Your task to perform on an android device: What's the weather? Image 0: 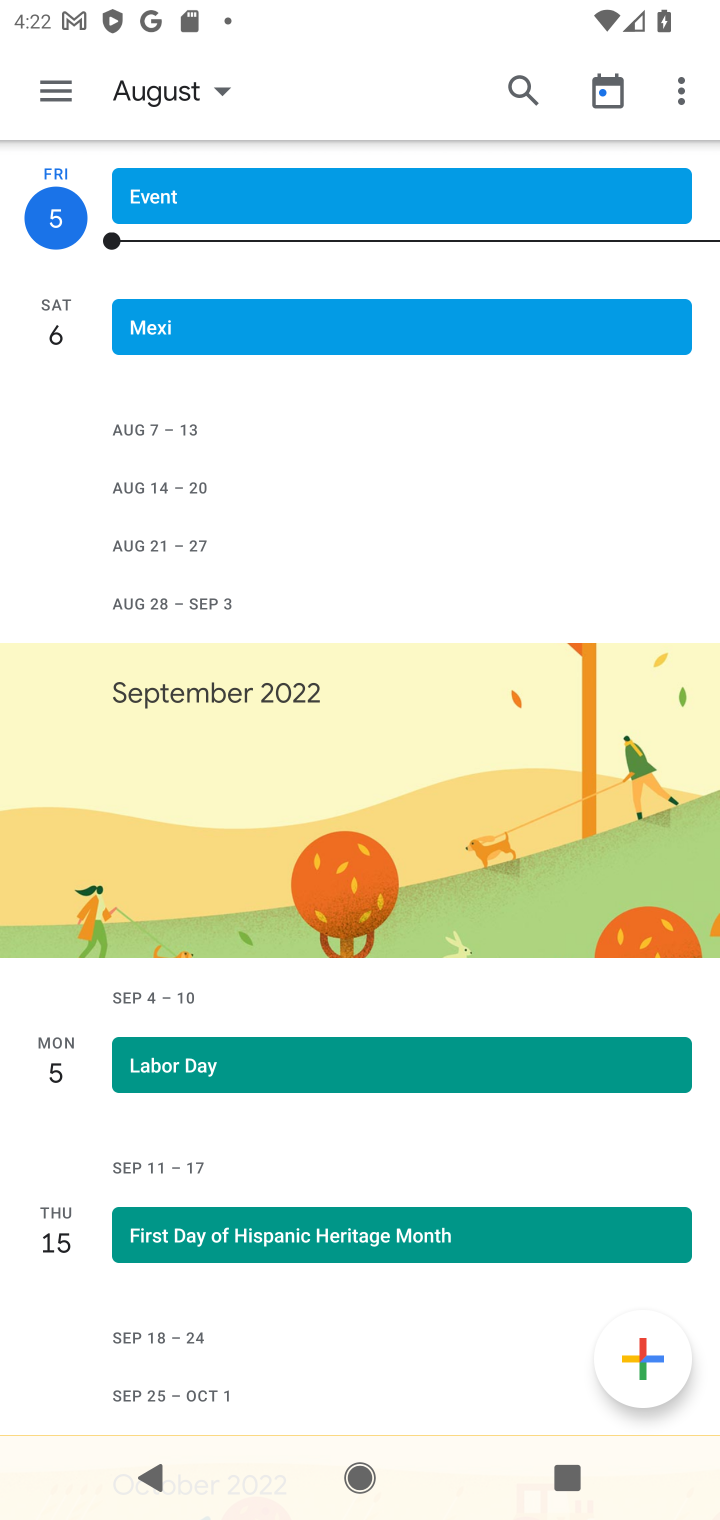
Step 0: press home button
Your task to perform on an android device: What's the weather? Image 1: 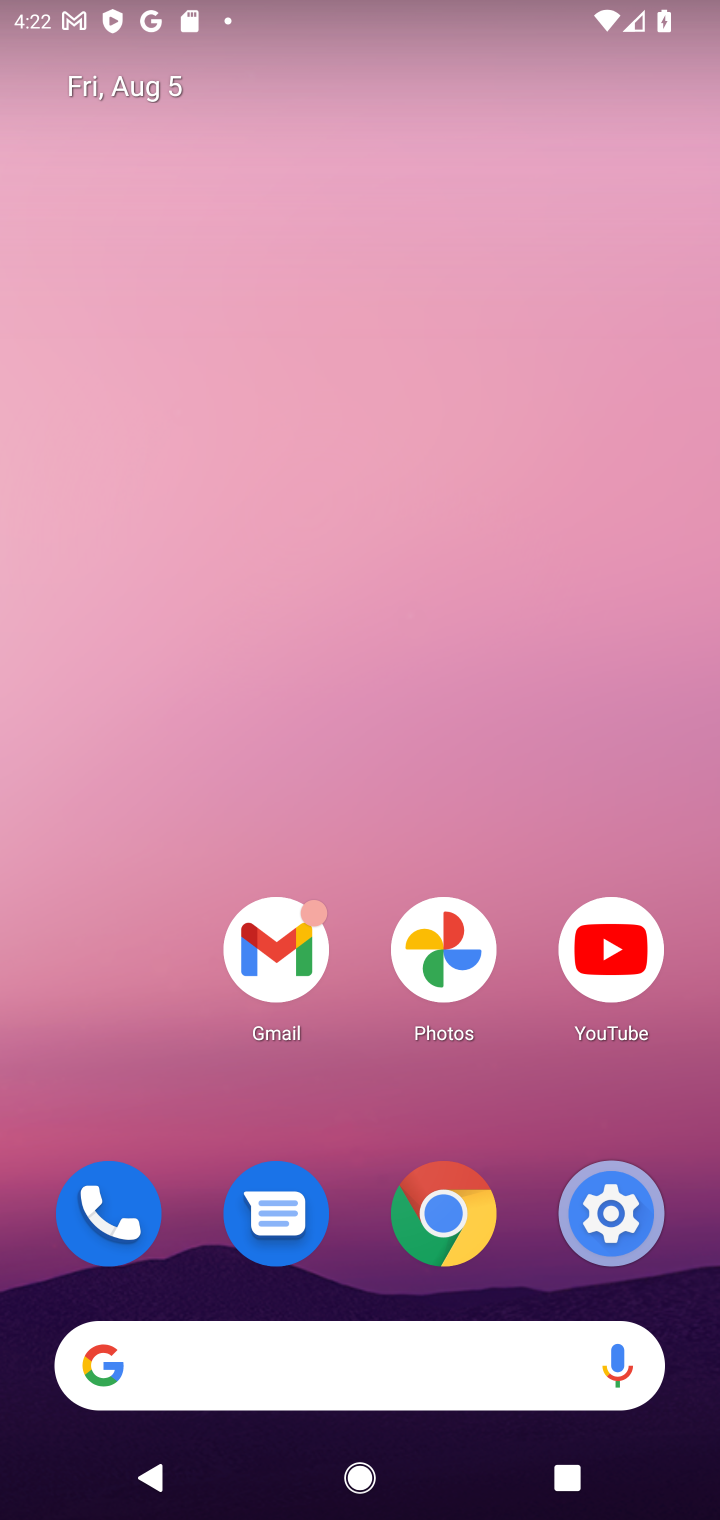
Step 1: click (403, 1364)
Your task to perform on an android device: What's the weather? Image 2: 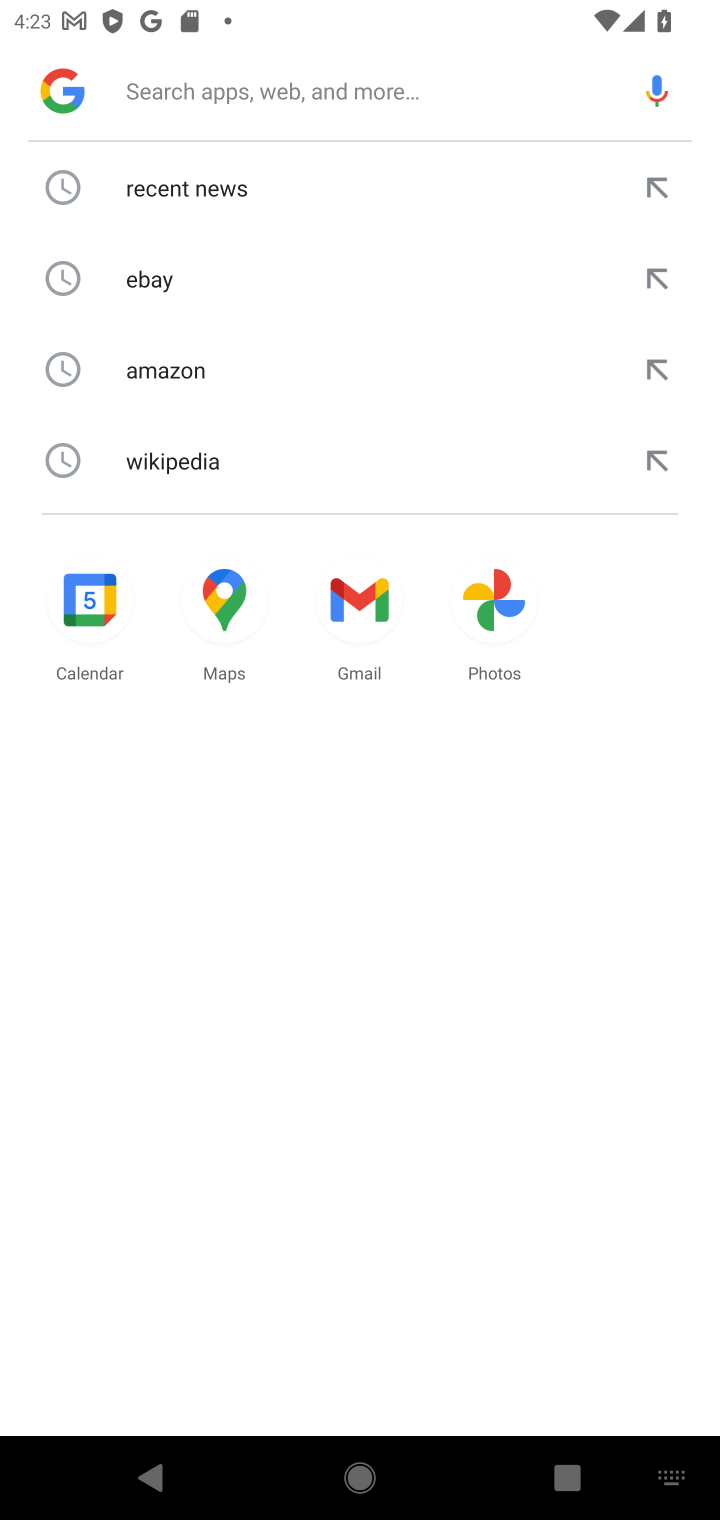
Step 2: type "weather"
Your task to perform on an android device: What's the weather? Image 3: 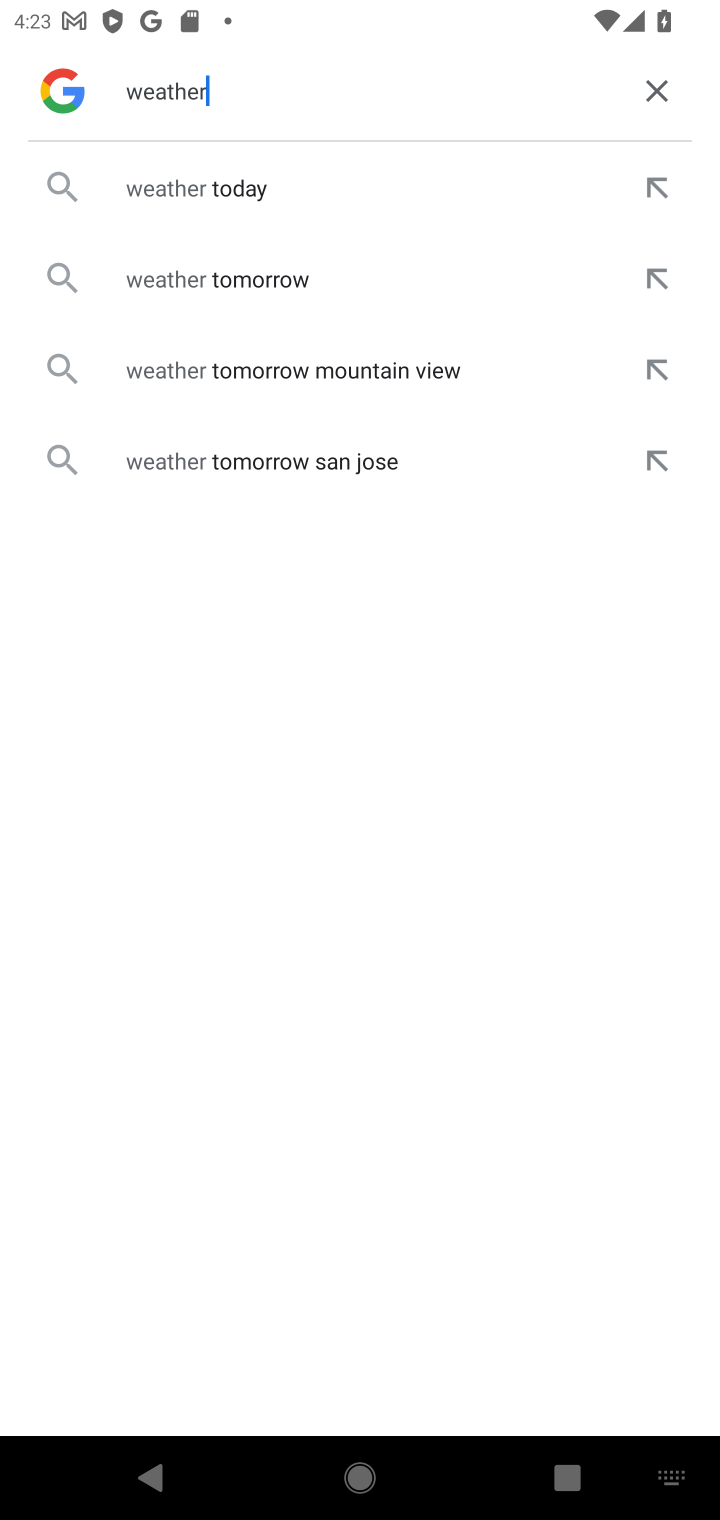
Step 3: click (186, 214)
Your task to perform on an android device: What's the weather? Image 4: 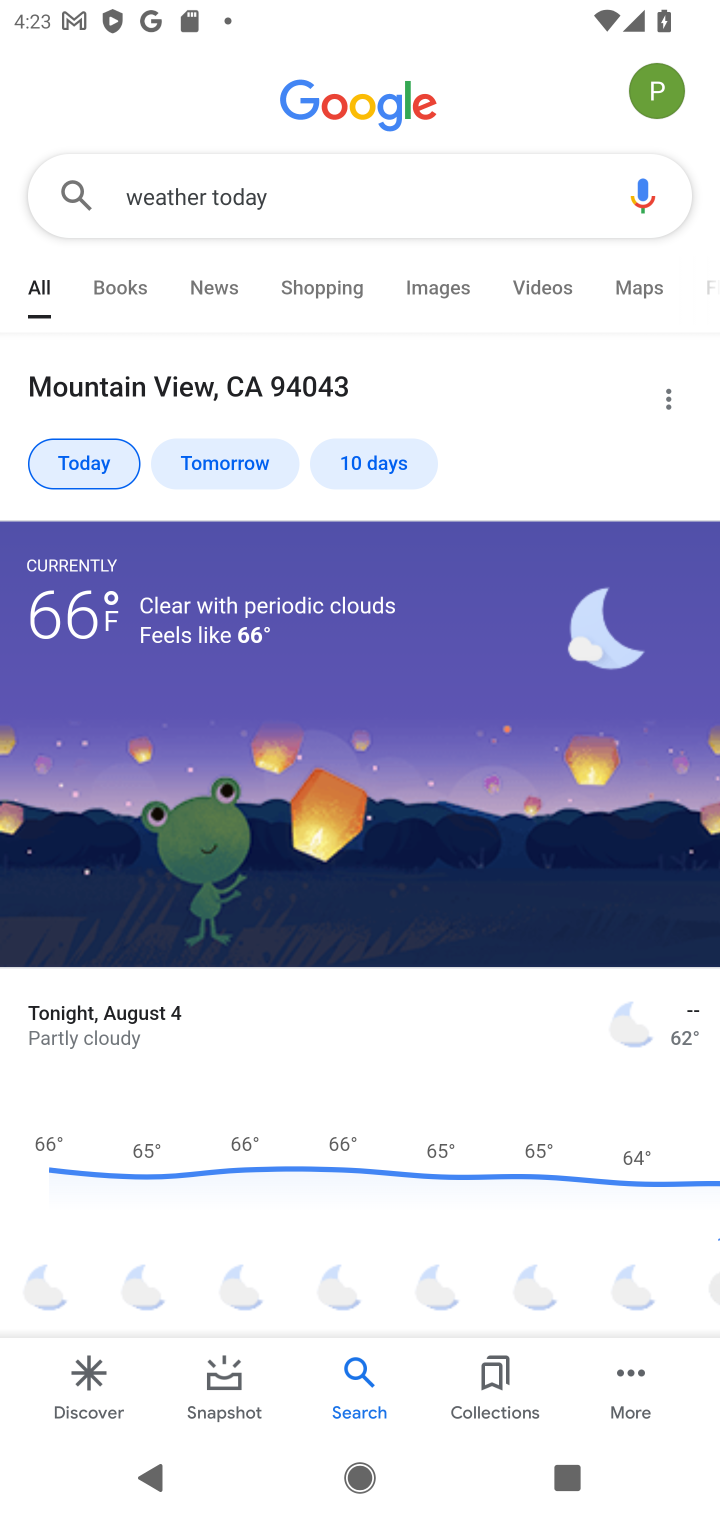
Step 4: task complete